Your task to perform on an android device: change keyboard looks Image 0: 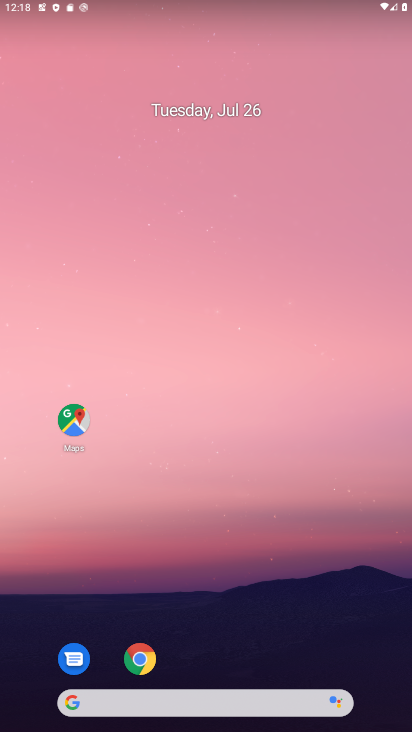
Step 0: drag from (273, 420) to (286, 320)
Your task to perform on an android device: change keyboard looks Image 1: 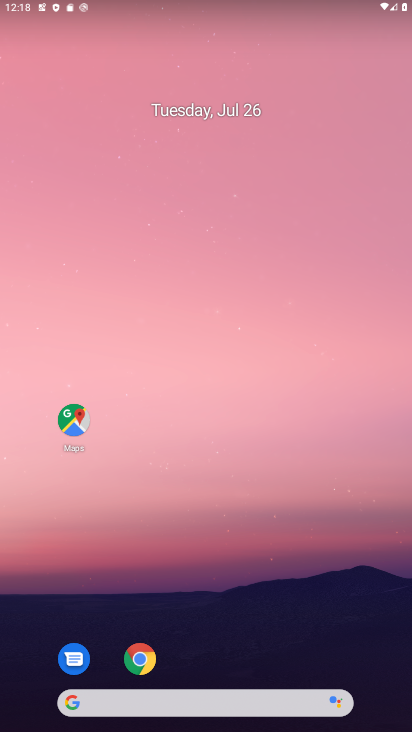
Step 1: drag from (172, 654) to (186, 489)
Your task to perform on an android device: change keyboard looks Image 2: 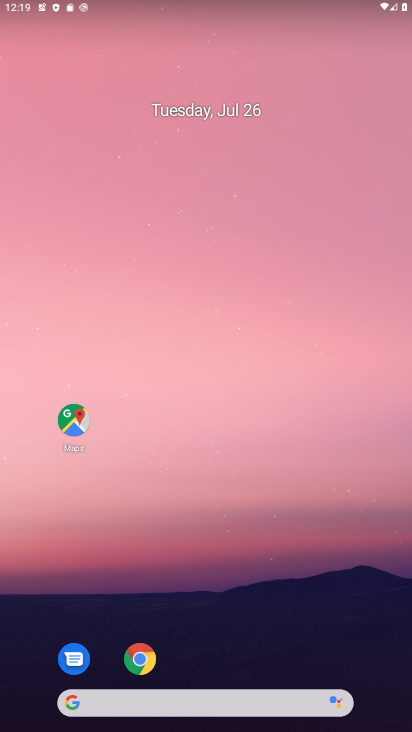
Step 2: drag from (205, 653) to (215, 357)
Your task to perform on an android device: change keyboard looks Image 3: 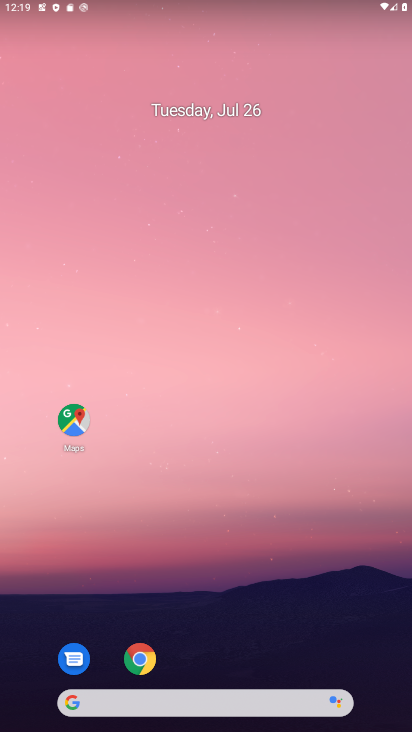
Step 3: drag from (211, 625) to (218, 393)
Your task to perform on an android device: change keyboard looks Image 4: 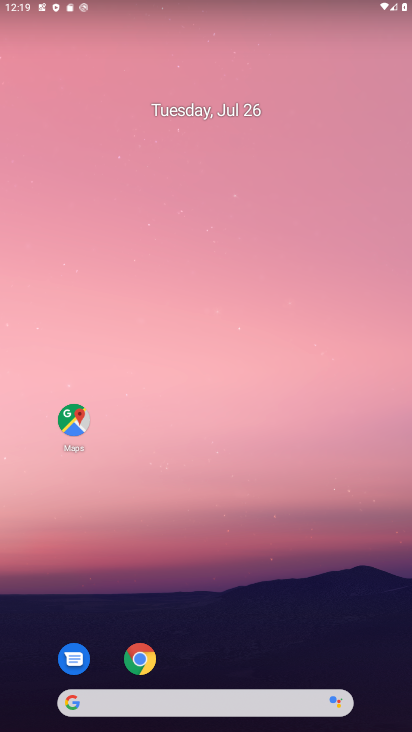
Step 4: drag from (203, 611) to (225, 256)
Your task to perform on an android device: change keyboard looks Image 5: 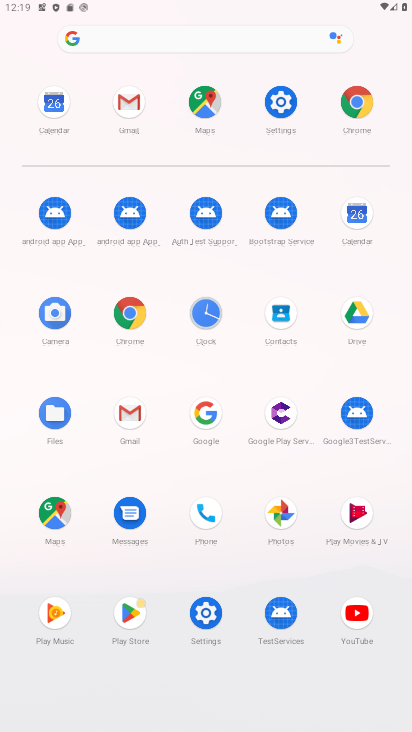
Step 5: click (291, 105)
Your task to perform on an android device: change keyboard looks Image 6: 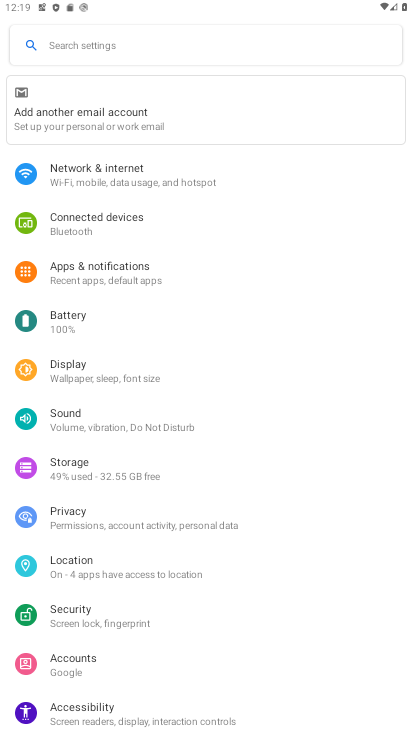
Step 6: drag from (114, 671) to (145, 451)
Your task to perform on an android device: change keyboard looks Image 7: 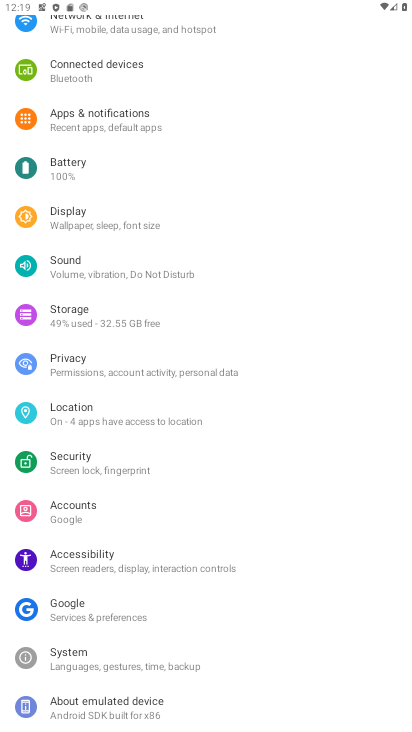
Step 7: click (78, 645)
Your task to perform on an android device: change keyboard looks Image 8: 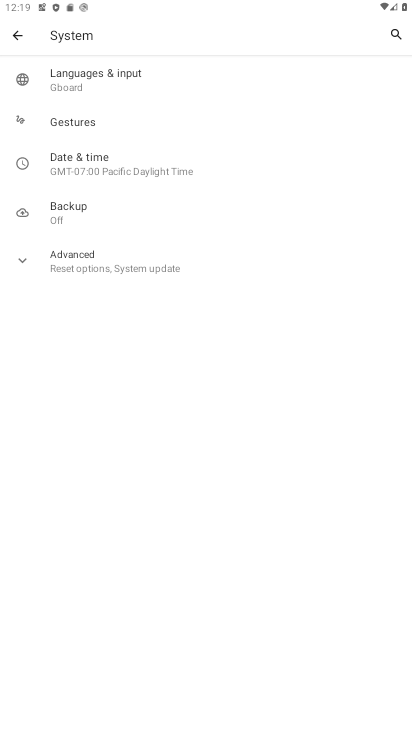
Step 8: click (158, 88)
Your task to perform on an android device: change keyboard looks Image 9: 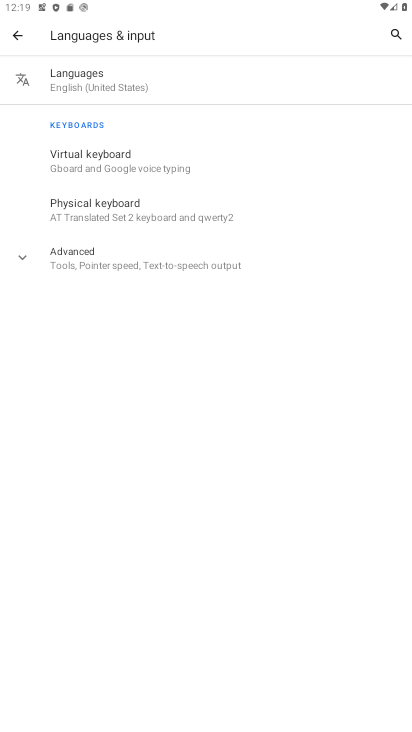
Step 9: click (98, 160)
Your task to perform on an android device: change keyboard looks Image 10: 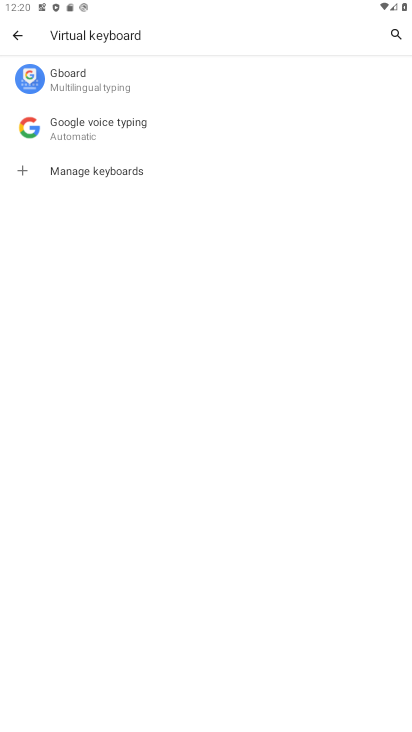
Step 10: click (108, 83)
Your task to perform on an android device: change keyboard looks Image 11: 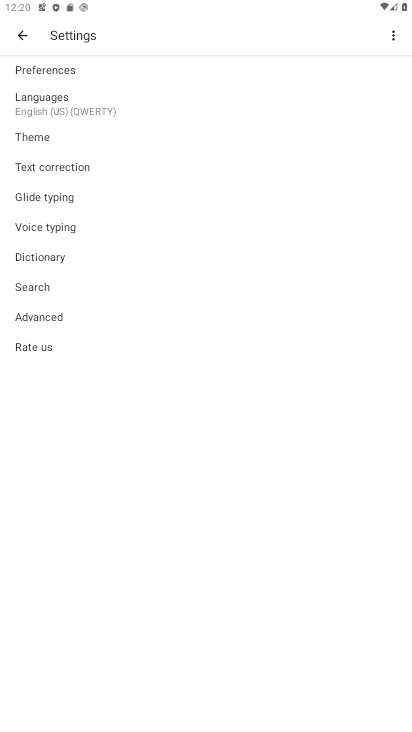
Step 11: click (44, 133)
Your task to perform on an android device: change keyboard looks Image 12: 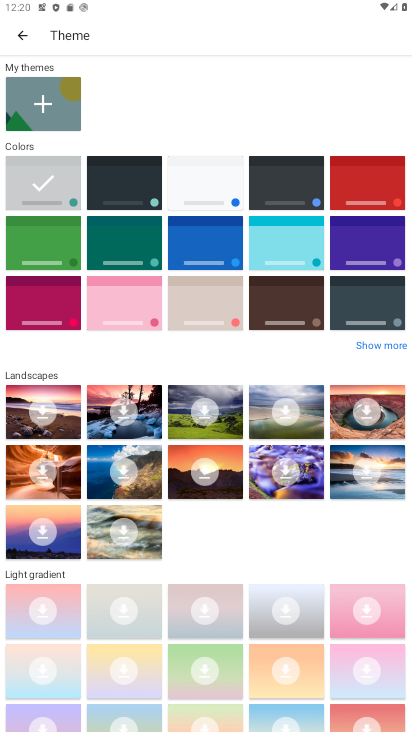
Step 12: click (130, 202)
Your task to perform on an android device: change keyboard looks Image 13: 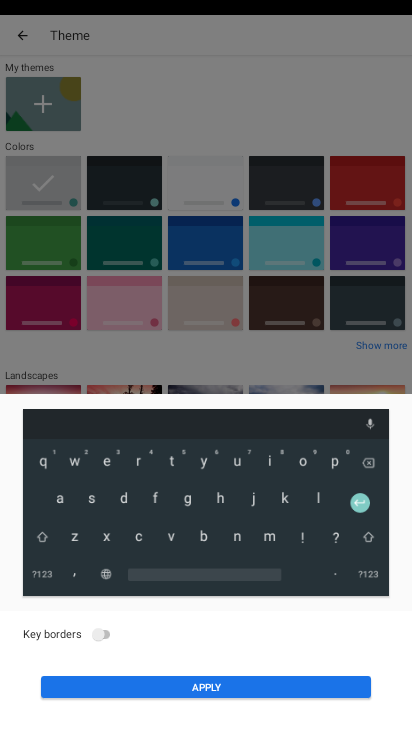
Step 13: click (164, 688)
Your task to perform on an android device: change keyboard looks Image 14: 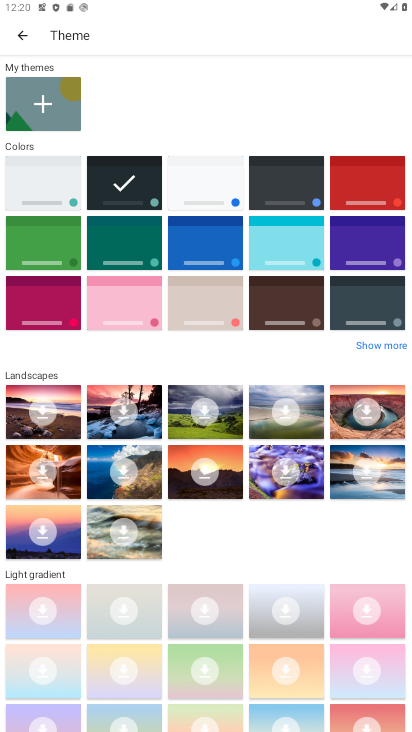
Step 14: task complete